Your task to perform on an android device: create a new album in the google photos Image 0: 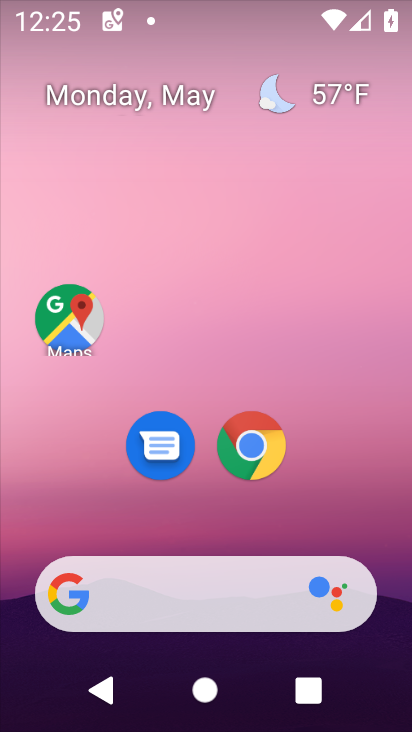
Step 0: drag from (299, 391) to (287, 140)
Your task to perform on an android device: create a new album in the google photos Image 1: 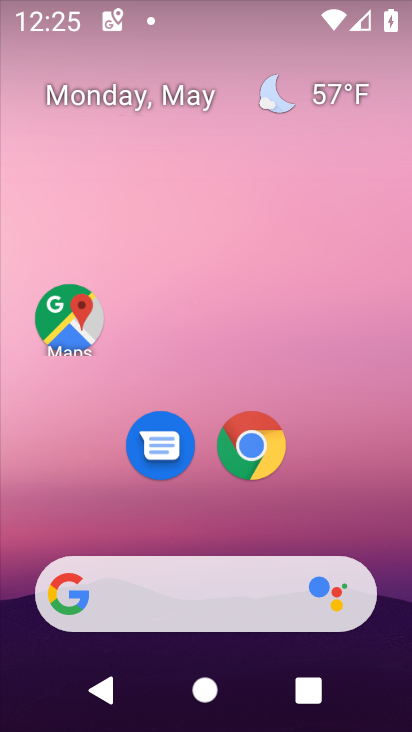
Step 1: drag from (333, 479) to (303, 131)
Your task to perform on an android device: create a new album in the google photos Image 2: 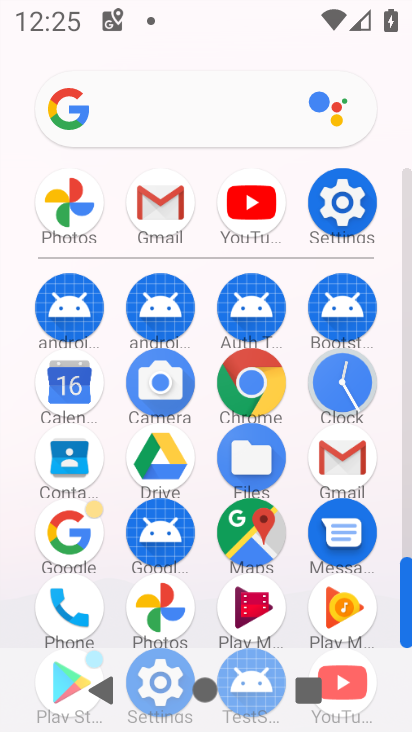
Step 2: click (49, 207)
Your task to perform on an android device: create a new album in the google photos Image 3: 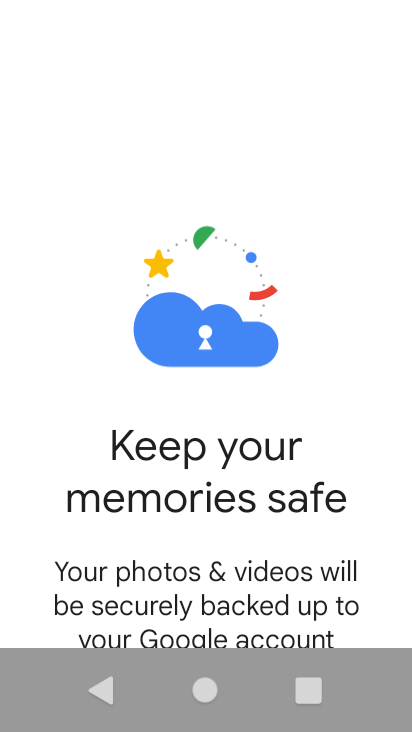
Step 3: drag from (237, 566) to (237, 244)
Your task to perform on an android device: create a new album in the google photos Image 4: 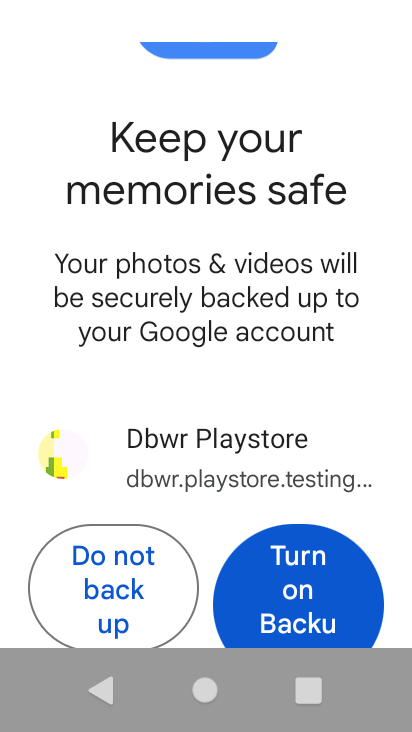
Step 4: click (184, 459)
Your task to perform on an android device: create a new album in the google photos Image 5: 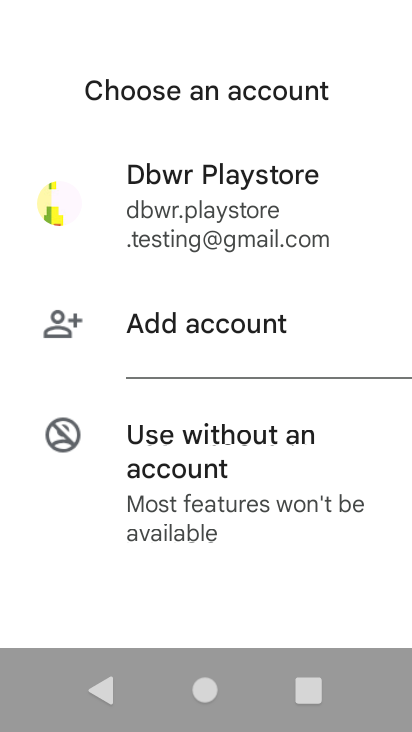
Step 5: click (182, 241)
Your task to perform on an android device: create a new album in the google photos Image 6: 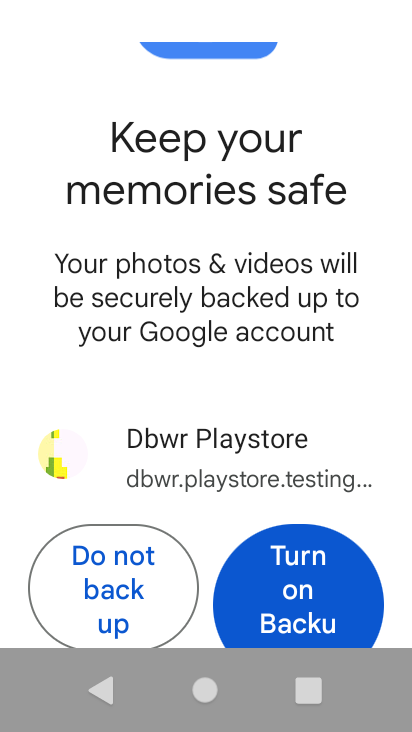
Step 6: click (300, 583)
Your task to perform on an android device: create a new album in the google photos Image 7: 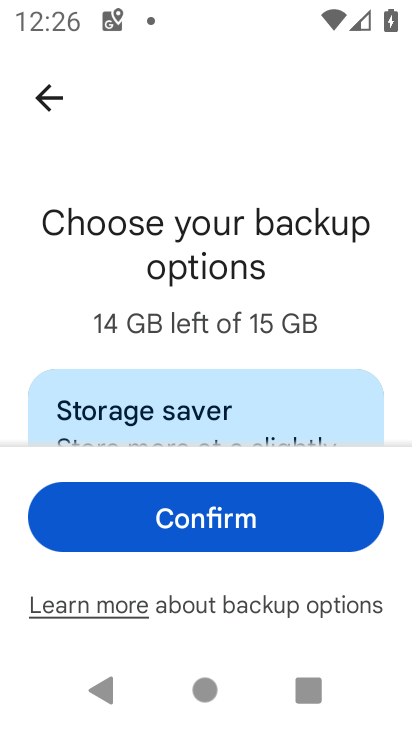
Step 7: click (168, 528)
Your task to perform on an android device: create a new album in the google photos Image 8: 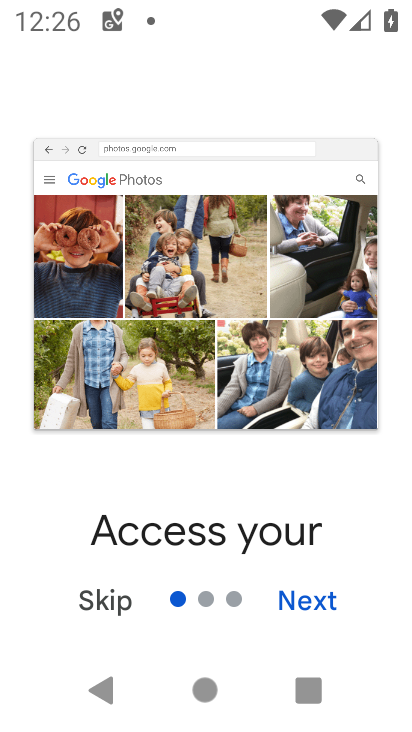
Step 8: click (309, 593)
Your task to perform on an android device: create a new album in the google photos Image 9: 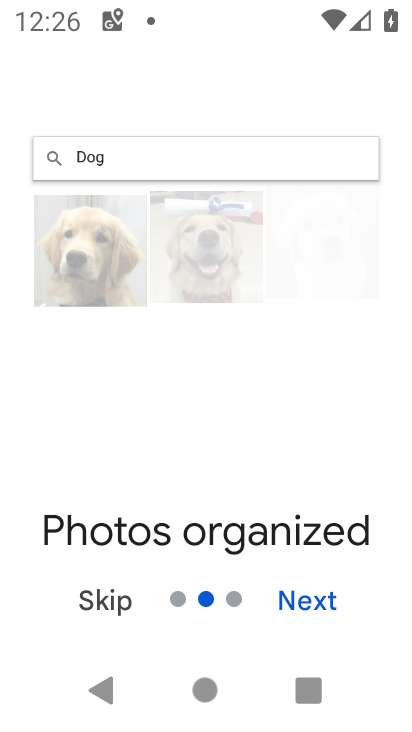
Step 9: click (309, 593)
Your task to perform on an android device: create a new album in the google photos Image 10: 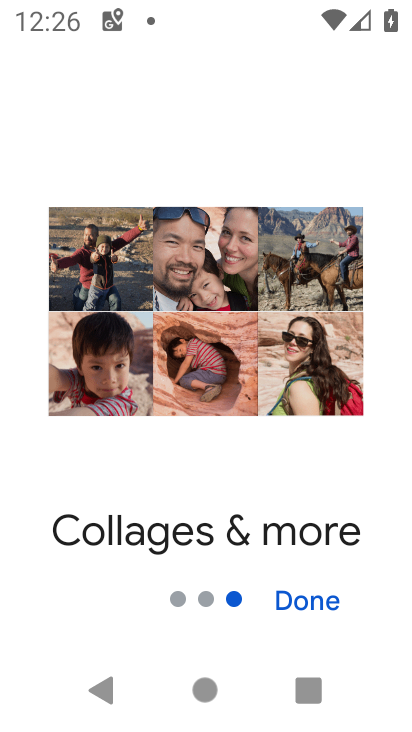
Step 10: click (309, 593)
Your task to perform on an android device: create a new album in the google photos Image 11: 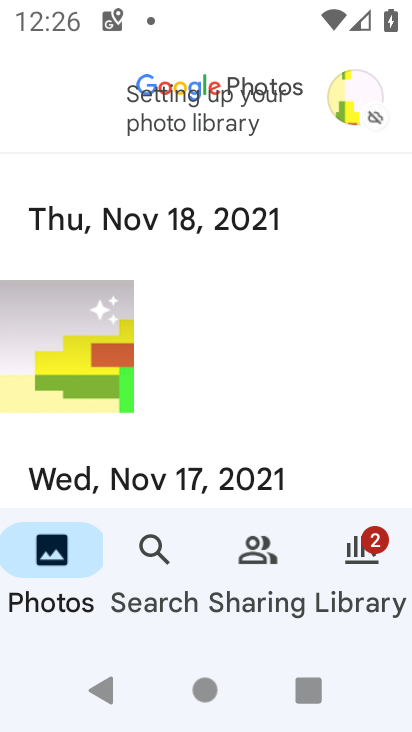
Step 11: click (309, 593)
Your task to perform on an android device: create a new album in the google photos Image 12: 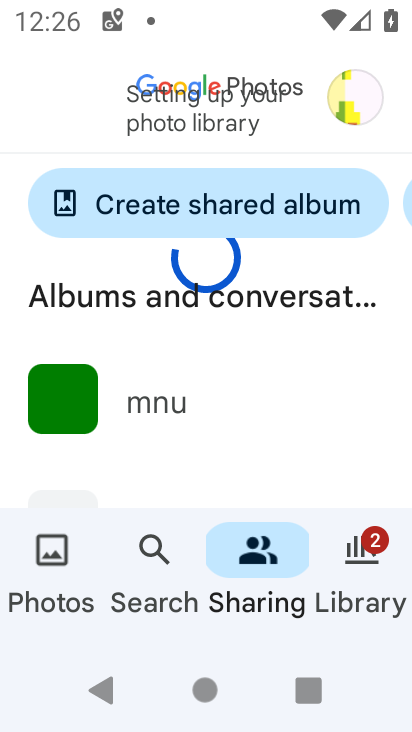
Step 12: click (42, 546)
Your task to perform on an android device: create a new album in the google photos Image 13: 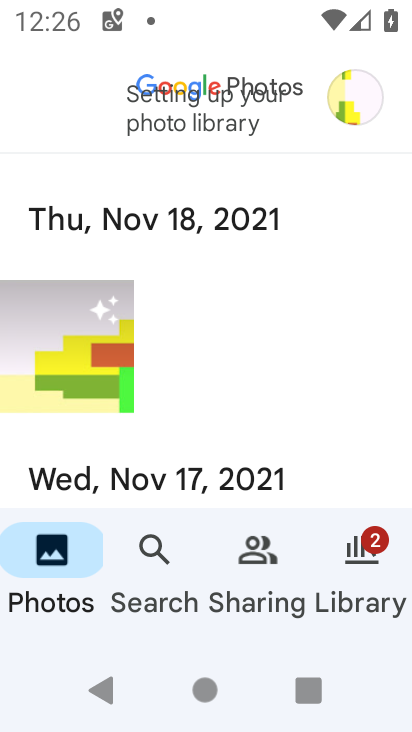
Step 13: click (93, 355)
Your task to perform on an android device: create a new album in the google photos Image 14: 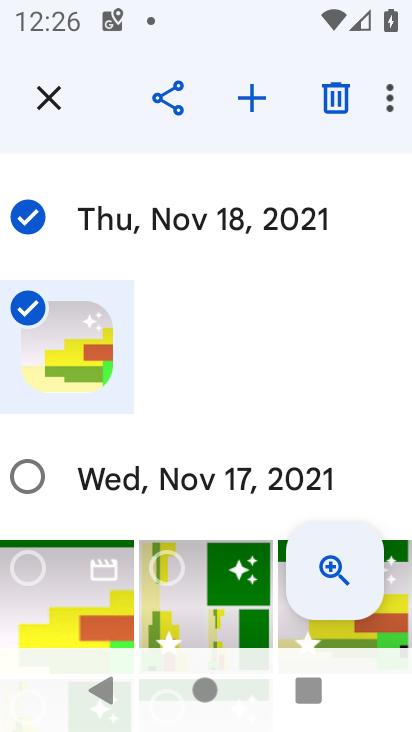
Step 14: click (17, 551)
Your task to perform on an android device: create a new album in the google photos Image 15: 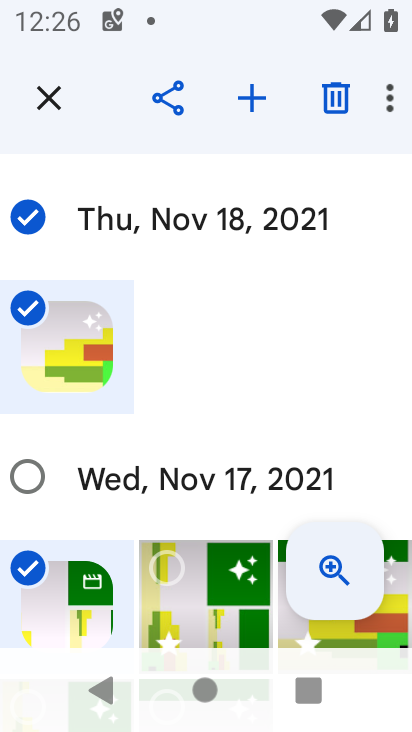
Step 15: click (249, 85)
Your task to perform on an android device: create a new album in the google photos Image 16: 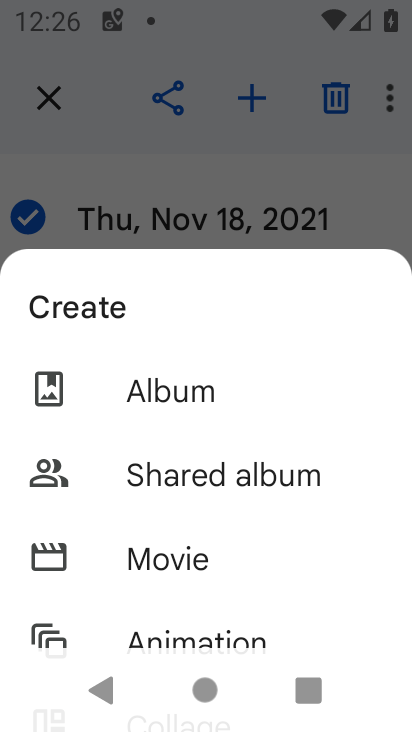
Step 16: click (153, 387)
Your task to perform on an android device: create a new album in the google photos Image 17: 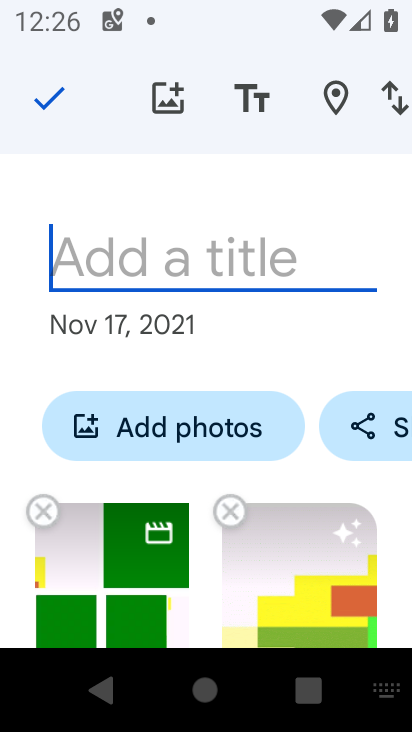
Step 17: type "vghjgutgktgjkutkg"
Your task to perform on an android device: create a new album in the google photos Image 18: 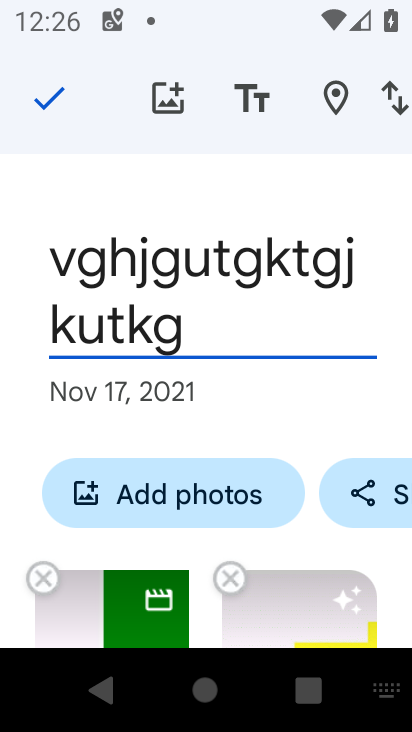
Step 18: click (58, 94)
Your task to perform on an android device: create a new album in the google photos Image 19: 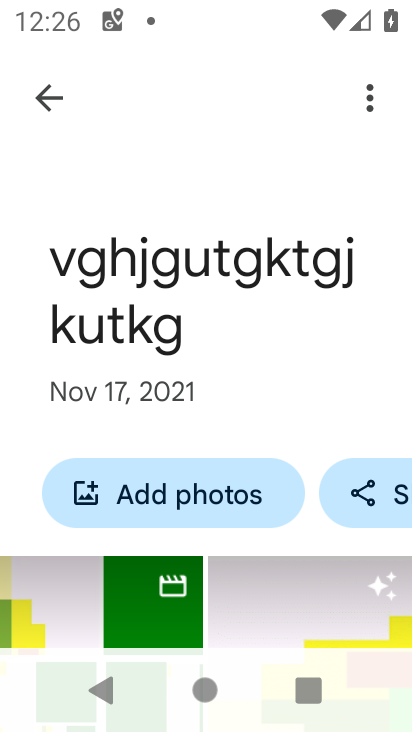
Step 19: task complete